Your task to perform on an android device: Add "usb-a to usb-b" to the cart on amazon.com, then select checkout. Image 0: 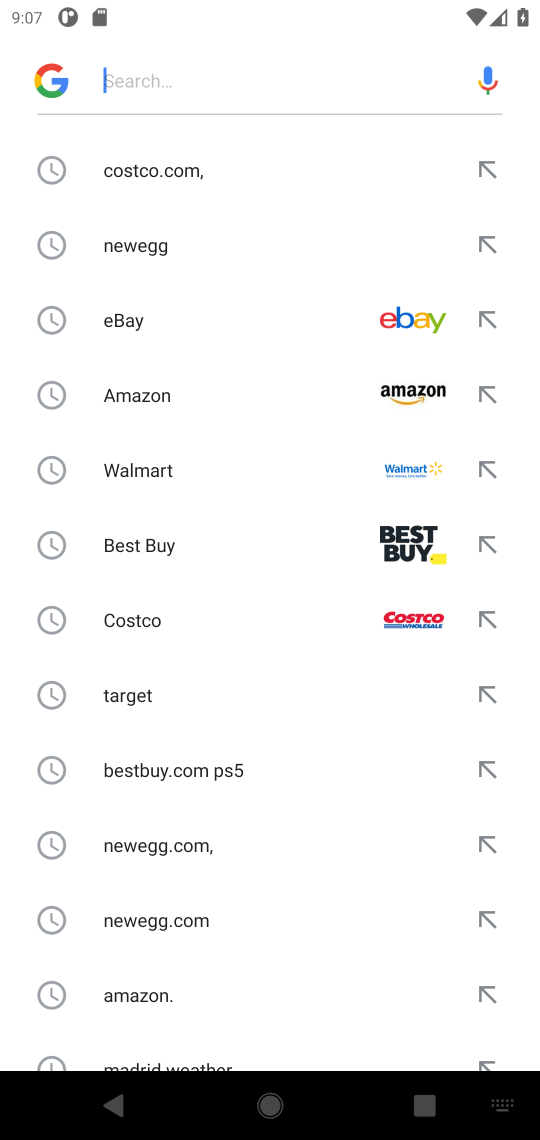
Step 0: press home button
Your task to perform on an android device: Add "usb-a to usb-b" to the cart on amazon.com, then select checkout. Image 1: 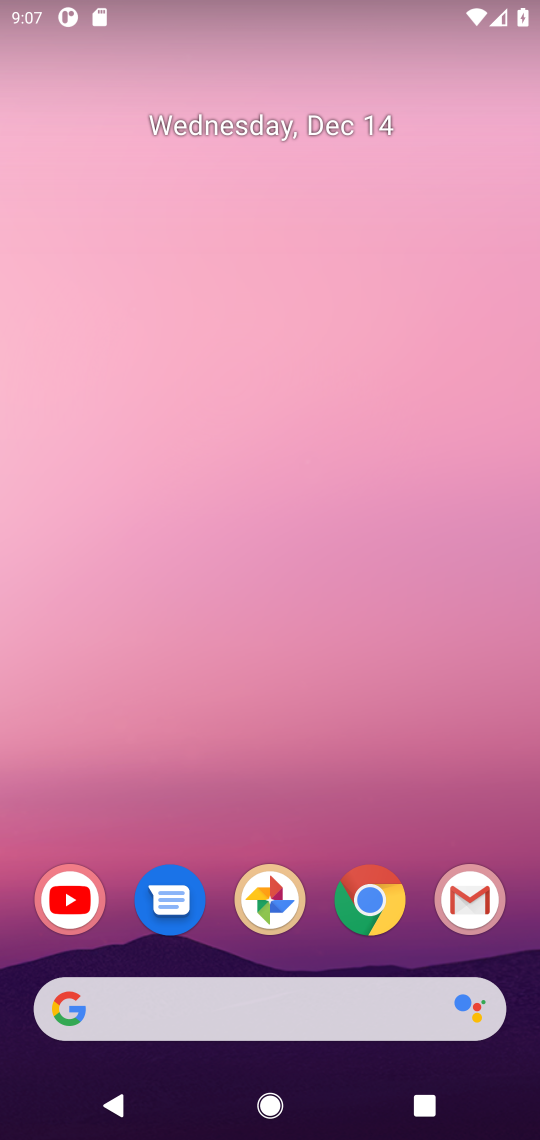
Step 1: click (286, 1004)
Your task to perform on an android device: Add "usb-a to usb-b" to the cart on amazon.com, then select checkout. Image 2: 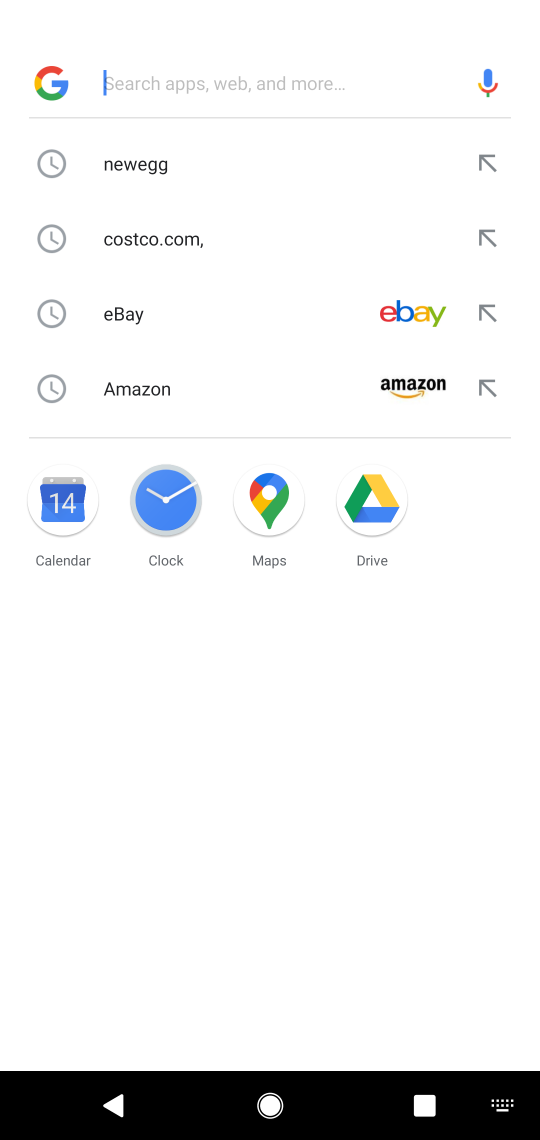
Step 2: click (115, 398)
Your task to perform on an android device: Add "usb-a to usb-b" to the cart on amazon.com, then select checkout. Image 3: 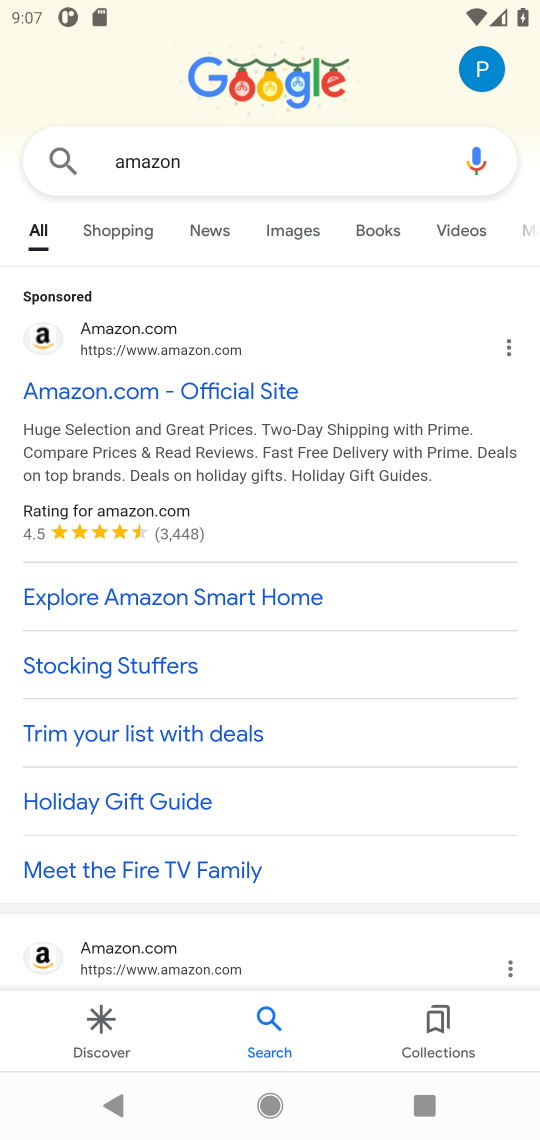
Step 3: click (149, 386)
Your task to perform on an android device: Add "usb-a to usb-b" to the cart on amazon.com, then select checkout. Image 4: 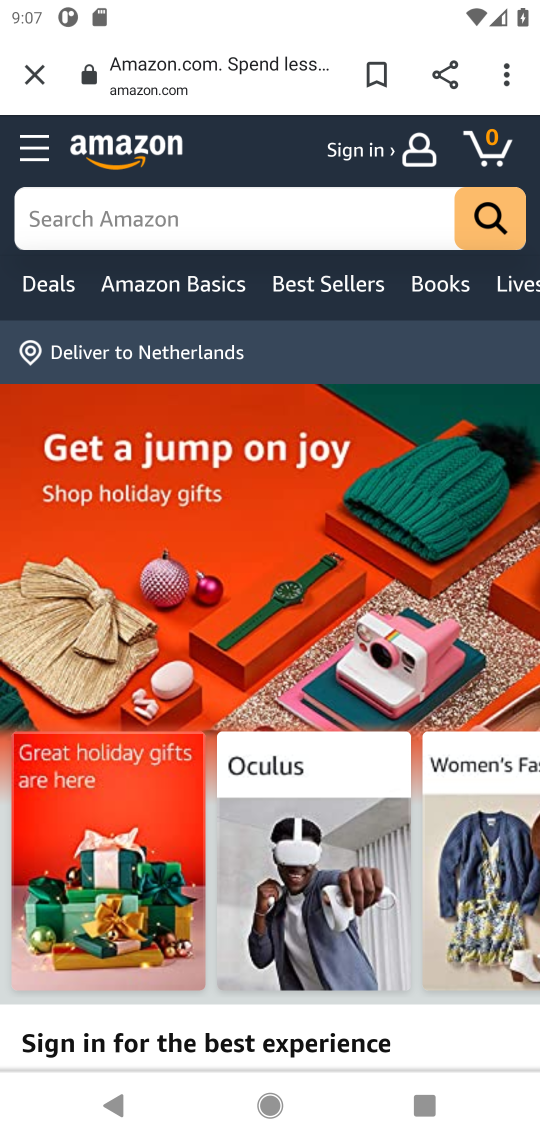
Step 4: click (314, 201)
Your task to perform on an android device: Add "usb-a to usb-b" to the cart on amazon.com, then select checkout. Image 5: 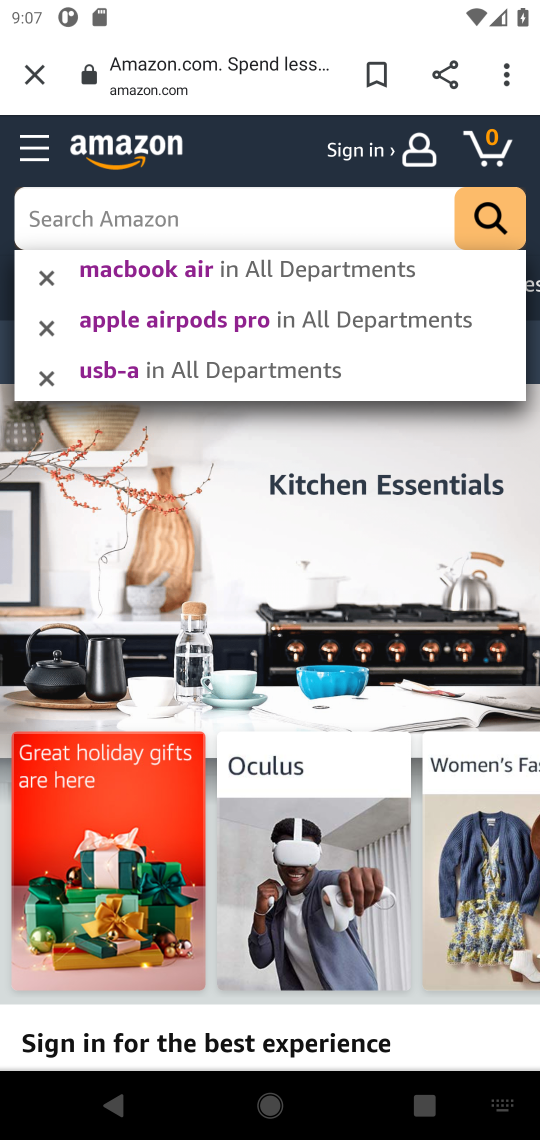
Step 5: click (262, 210)
Your task to perform on an android device: Add "usb-a to usb-b" to the cart on amazon.com, then select checkout. Image 6: 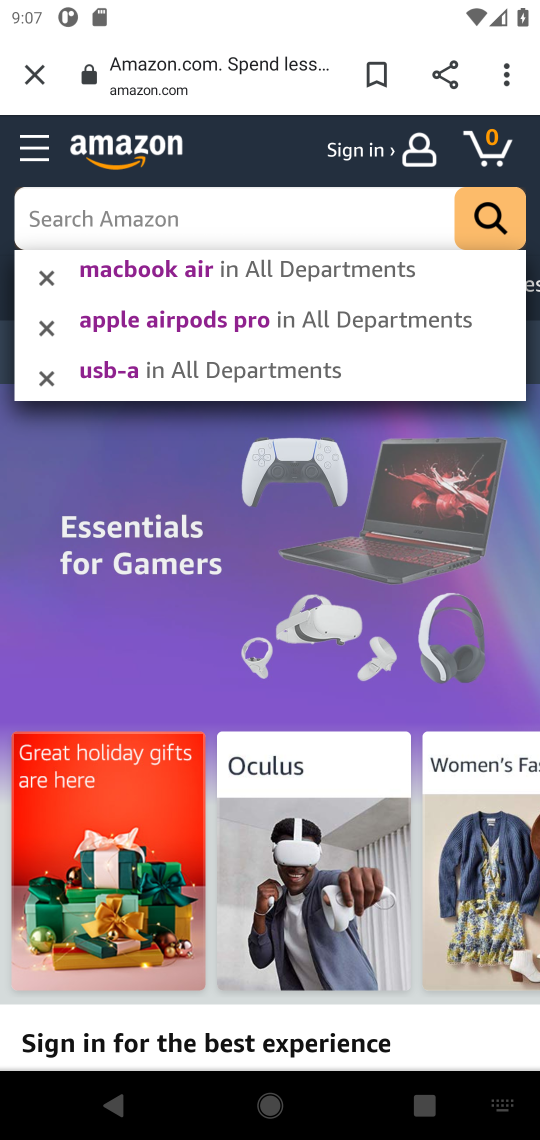
Step 6: type "usb-a to usb-b"
Your task to perform on an android device: Add "usb-a to usb-b" to the cart on amazon.com, then select checkout. Image 7: 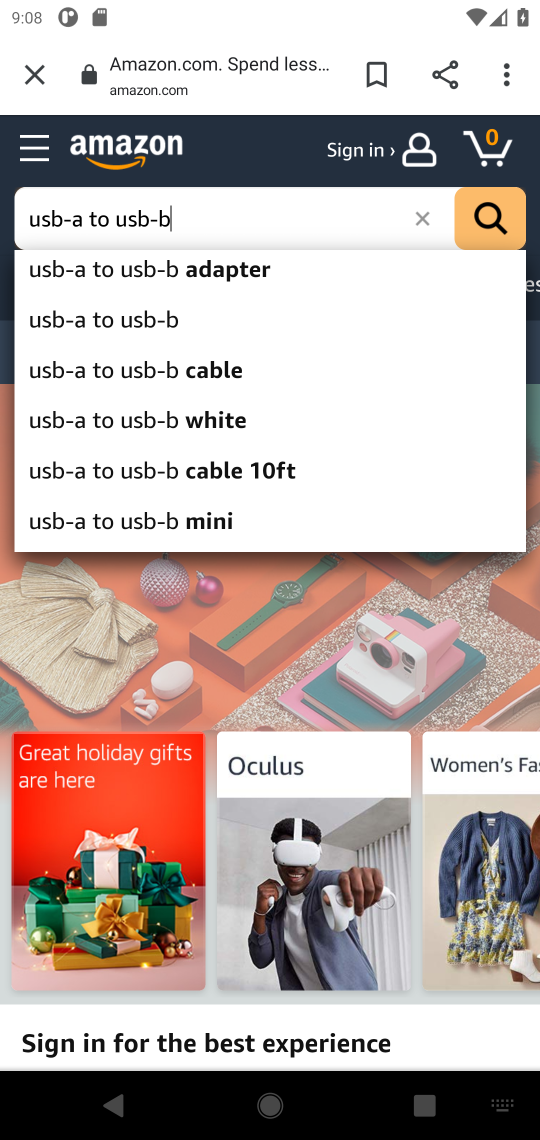
Step 7: click (483, 219)
Your task to perform on an android device: Add "usb-a to usb-b" to the cart on amazon.com, then select checkout. Image 8: 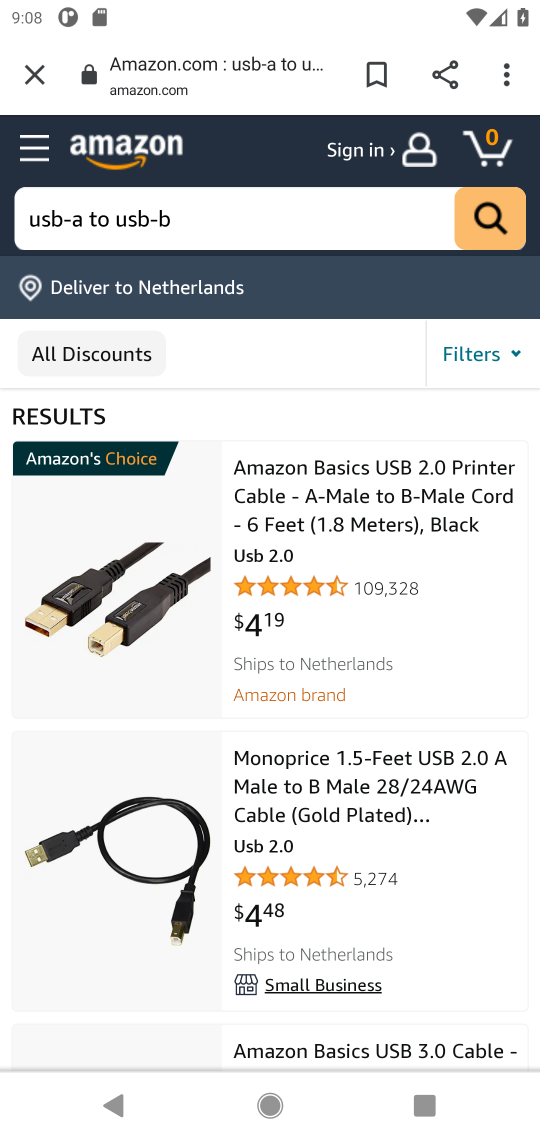
Step 8: click (284, 606)
Your task to perform on an android device: Add "usb-a to usb-b" to the cart on amazon.com, then select checkout. Image 9: 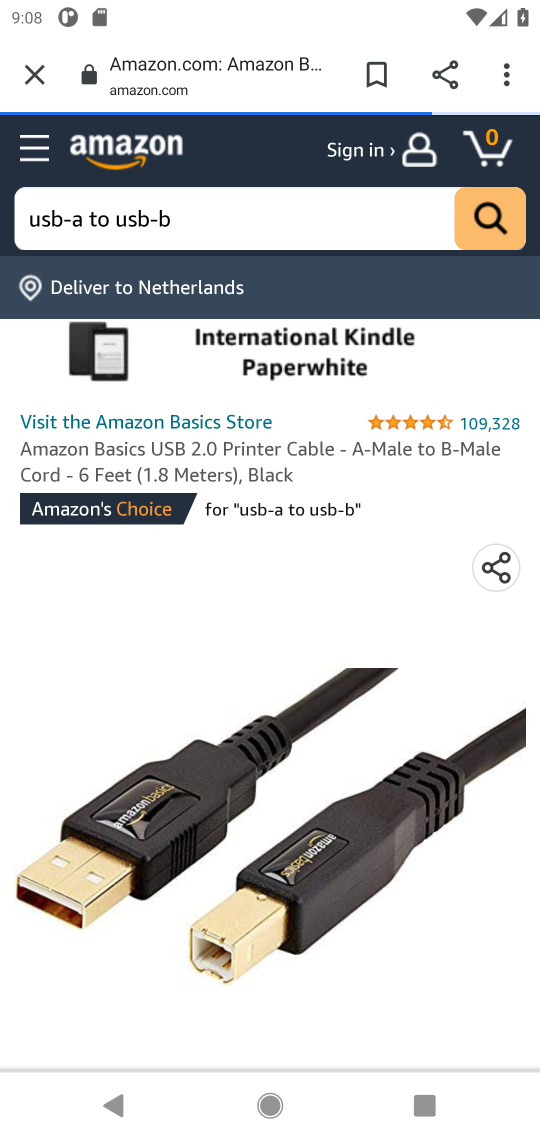
Step 9: drag from (259, 942) to (266, 366)
Your task to perform on an android device: Add "usb-a to usb-b" to the cart on amazon.com, then select checkout. Image 10: 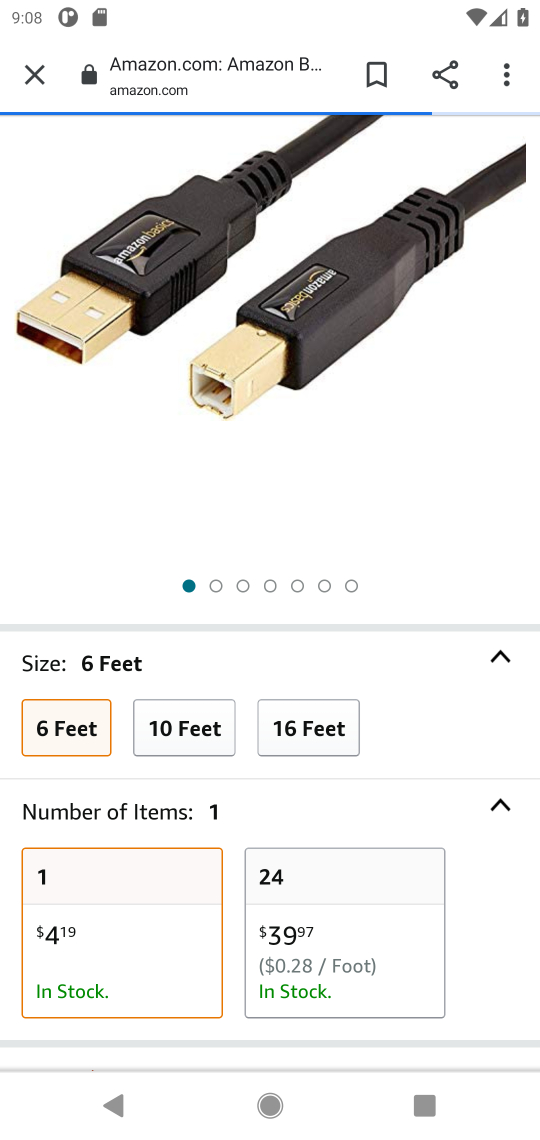
Step 10: drag from (305, 956) to (226, 225)
Your task to perform on an android device: Add "usb-a to usb-b" to the cart on amazon.com, then select checkout. Image 11: 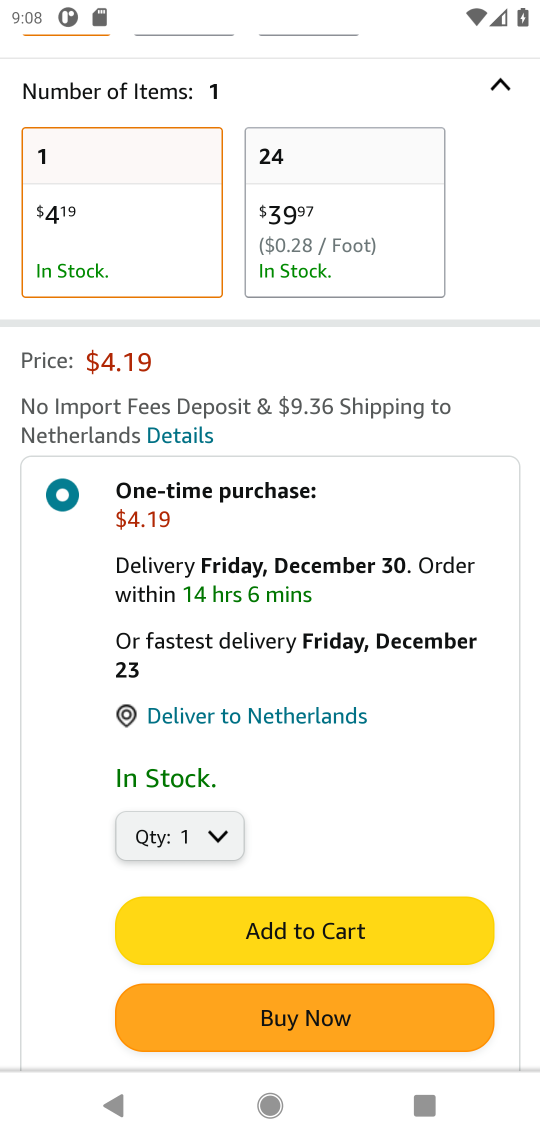
Step 11: click (299, 927)
Your task to perform on an android device: Add "usb-a to usb-b" to the cart on amazon.com, then select checkout. Image 12: 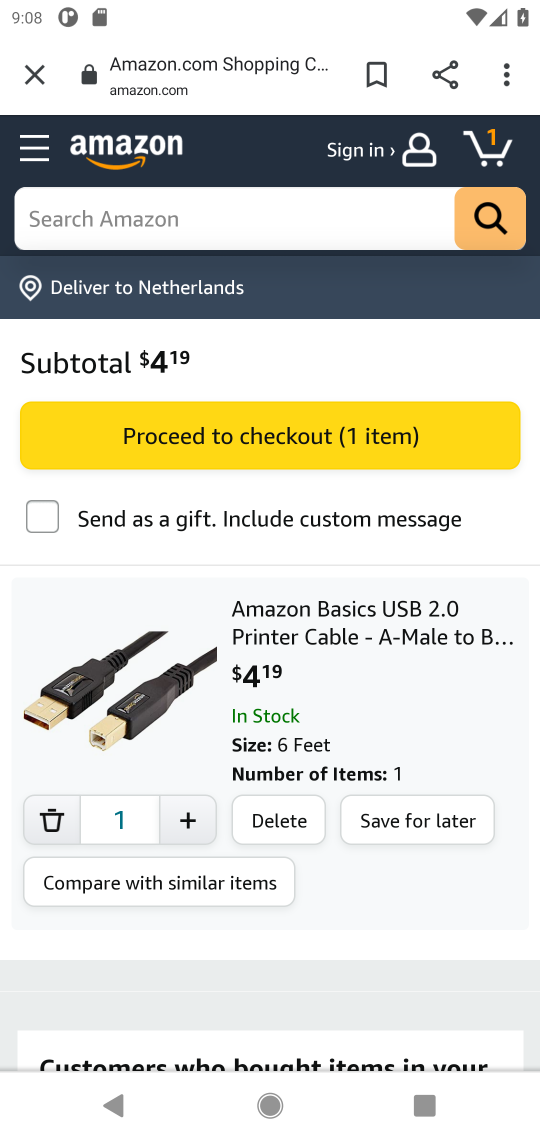
Step 12: click (219, 429)
Your task to perform on an android device: Add "usb-a to usb-b" to the cart on amazon.com, then select checkout. Image 13: 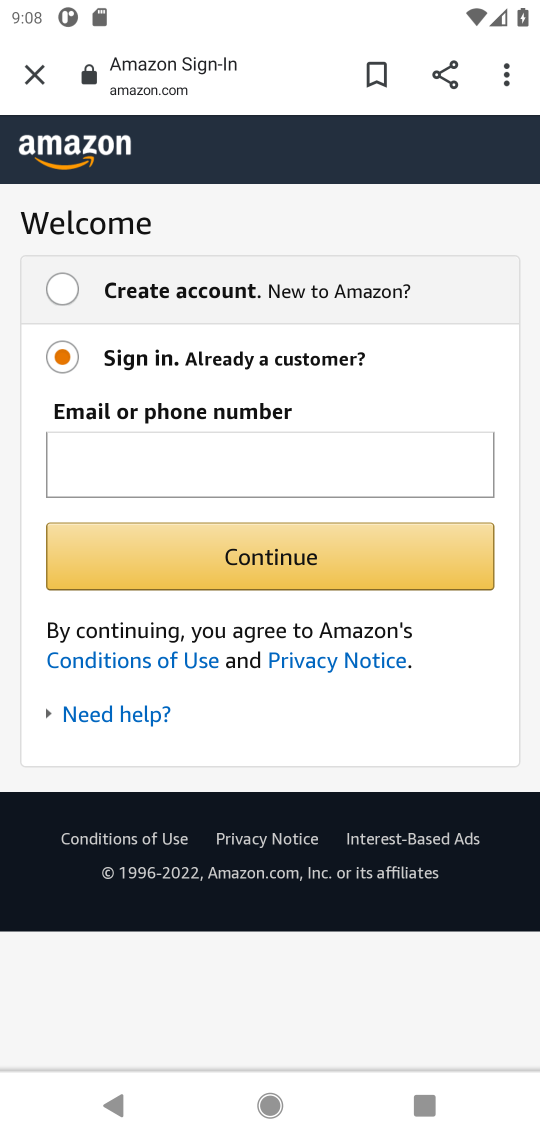
Step 13: task complete